Your task to perform on an android device: create a new album in the google photos Image 0: 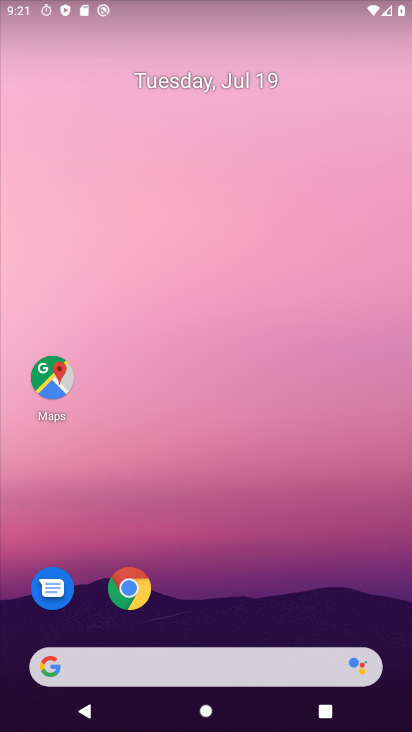
Step 0: press home button
Your task to perform on an android device: create a new album in the google photos Image 1: 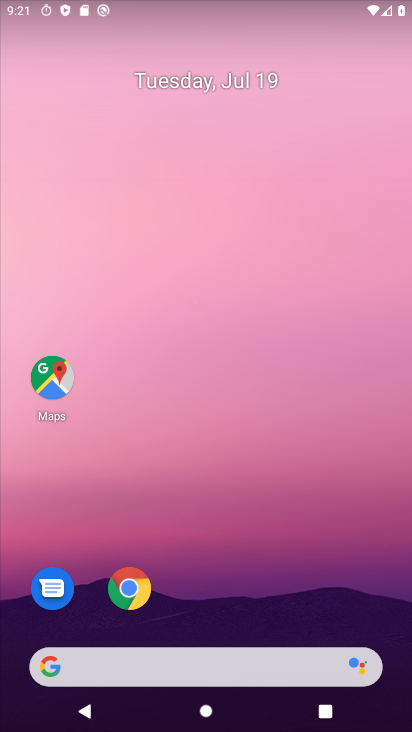
Step 1: drag from (223, 618) to (241, 168)
Your task to perform on an android device: create a new album in the google photos Image 2: 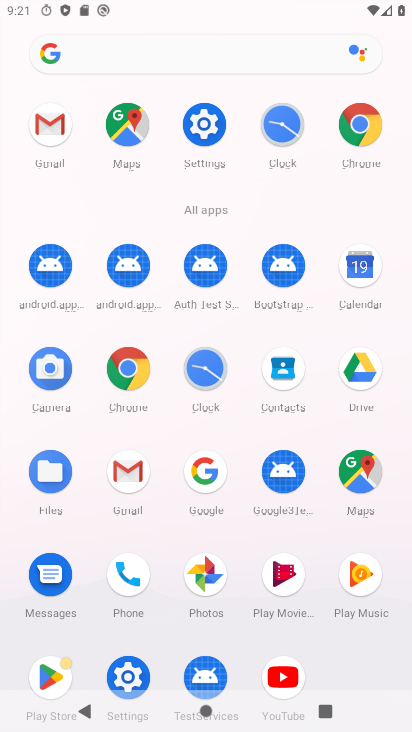
Step 2: click (203, 571)
Your task to perform on an android device: create a new album in the google photos Image 3: 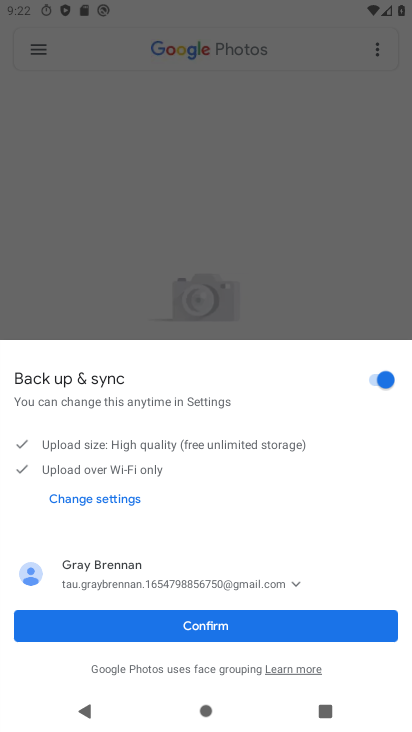
Step 3: click (220, 624)
Your task to perform on an android device: create a new album in the google photos Image 4: 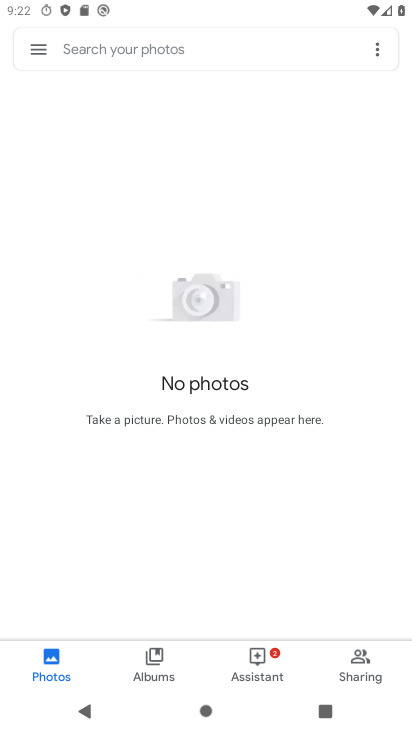
Step 4: click (155, 655)
Your task to perform on an android device: create a new album in the google photos Image 5: 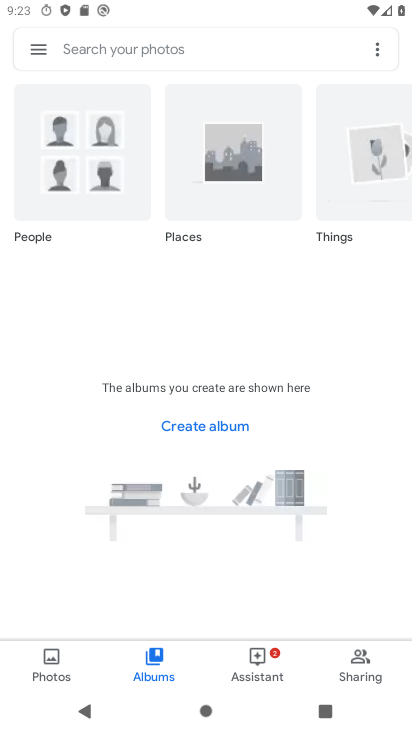
Step 5: click (379, 40)
Your task to perform on an android device: create a new album in the google photos Image 6: 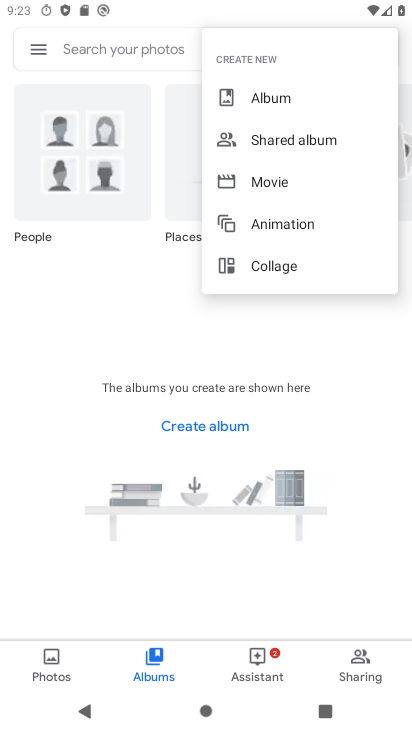
Step 6: click (295, 90)
Your task to perform on an android device: create a new album in the google photos Image 7: 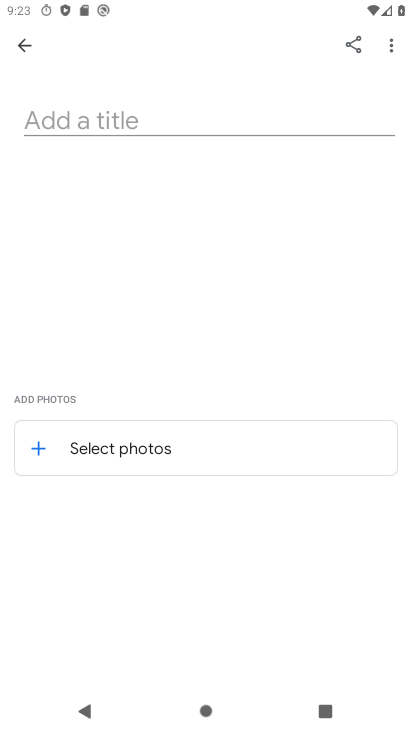
Step 7: task complete